Your task to perform on an android device: Turn on the flashlight Image 0: 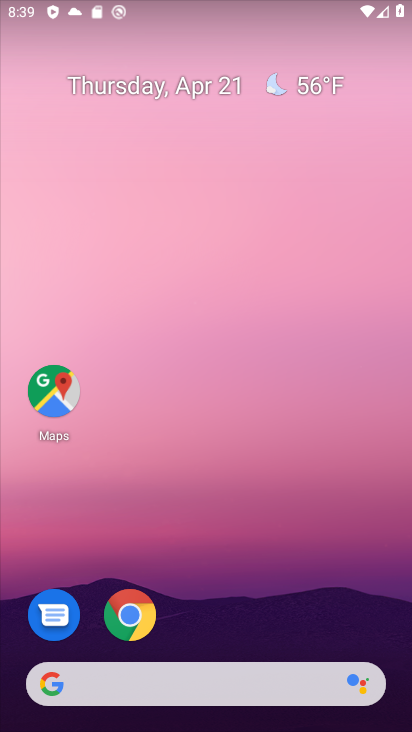
Step 0: drag from (255, 623) to (190, 182)
Your task to perform on an android device: Turn on the flashlight Image 1: 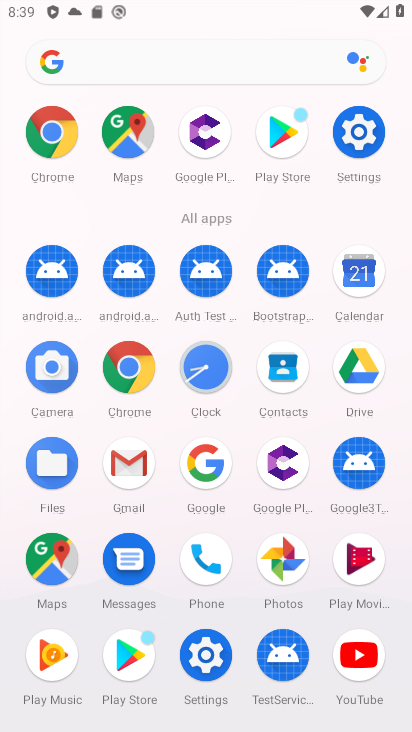
Step 1: drag from (206, 545) to (254, 260)
Your task to perform on an android device: Turn on the flashlight Image 2: 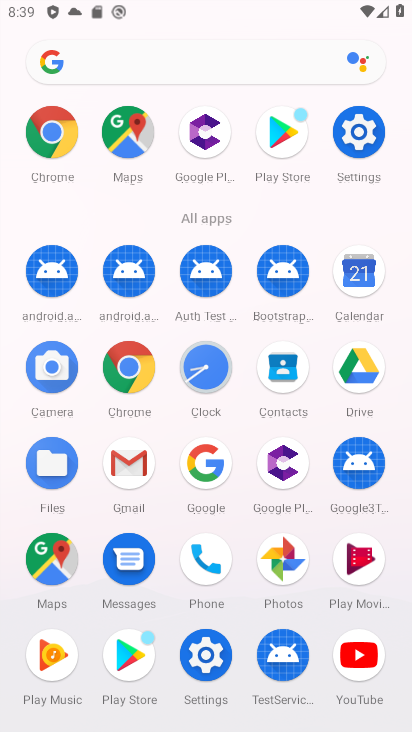
Step 2: click (205, 652)
Your task to perform on an android device: Turn on the flashlight Image 3: 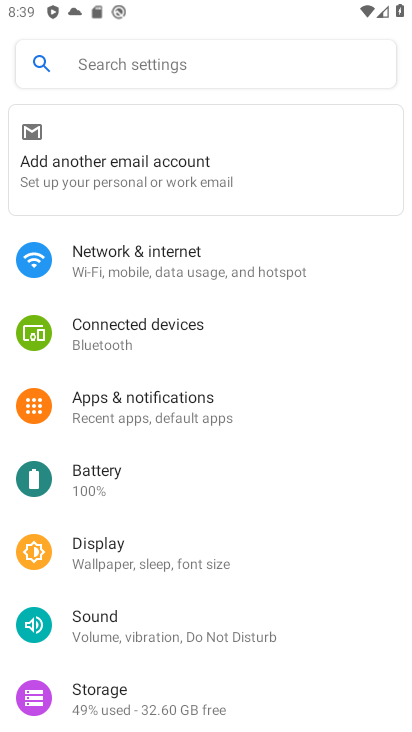
Step 3: task complete